Your task to perform on an android device: What's on my calendar tomorrow? Image 0: 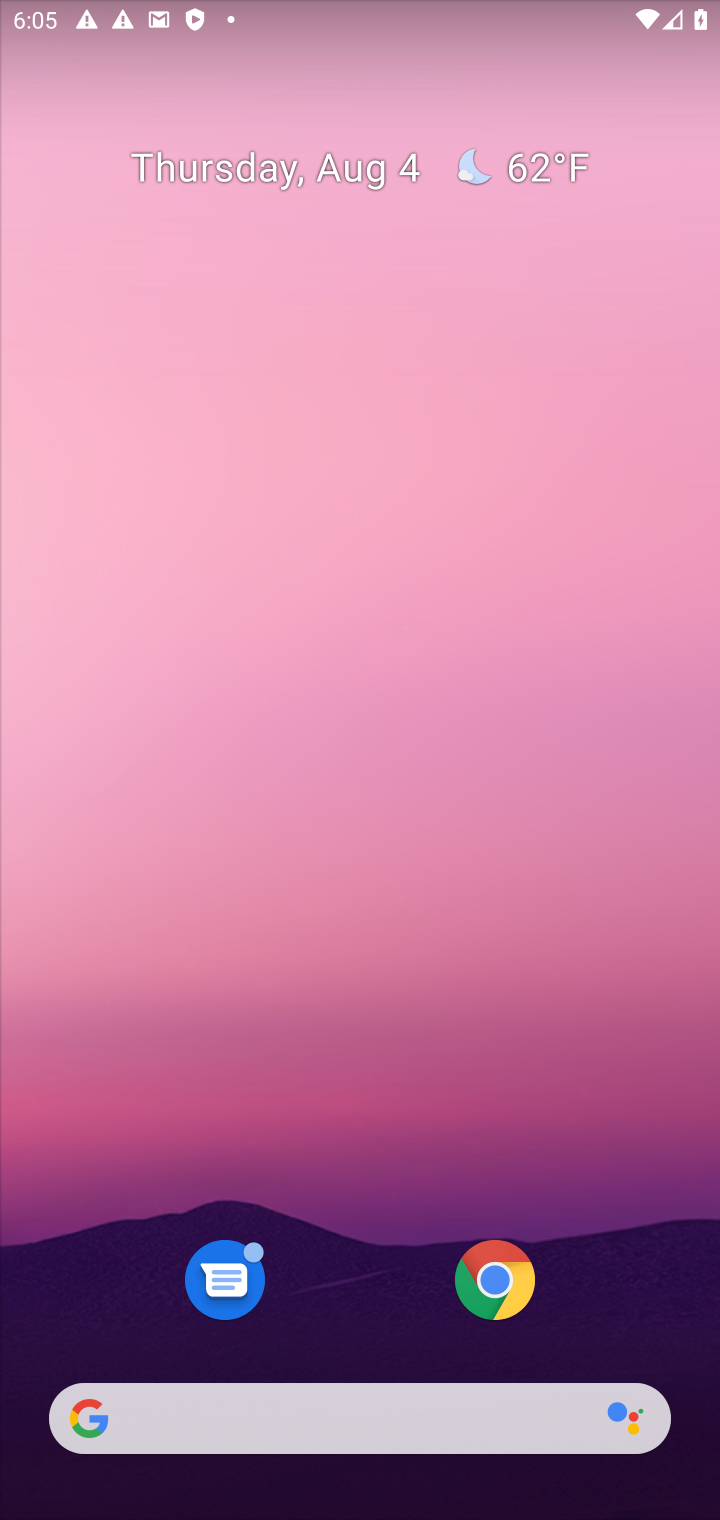
Step 0: drag from (307, 545) to (451, 184)
Your task to perform on an android device: What's on my calendar tomorrow? Image 1: 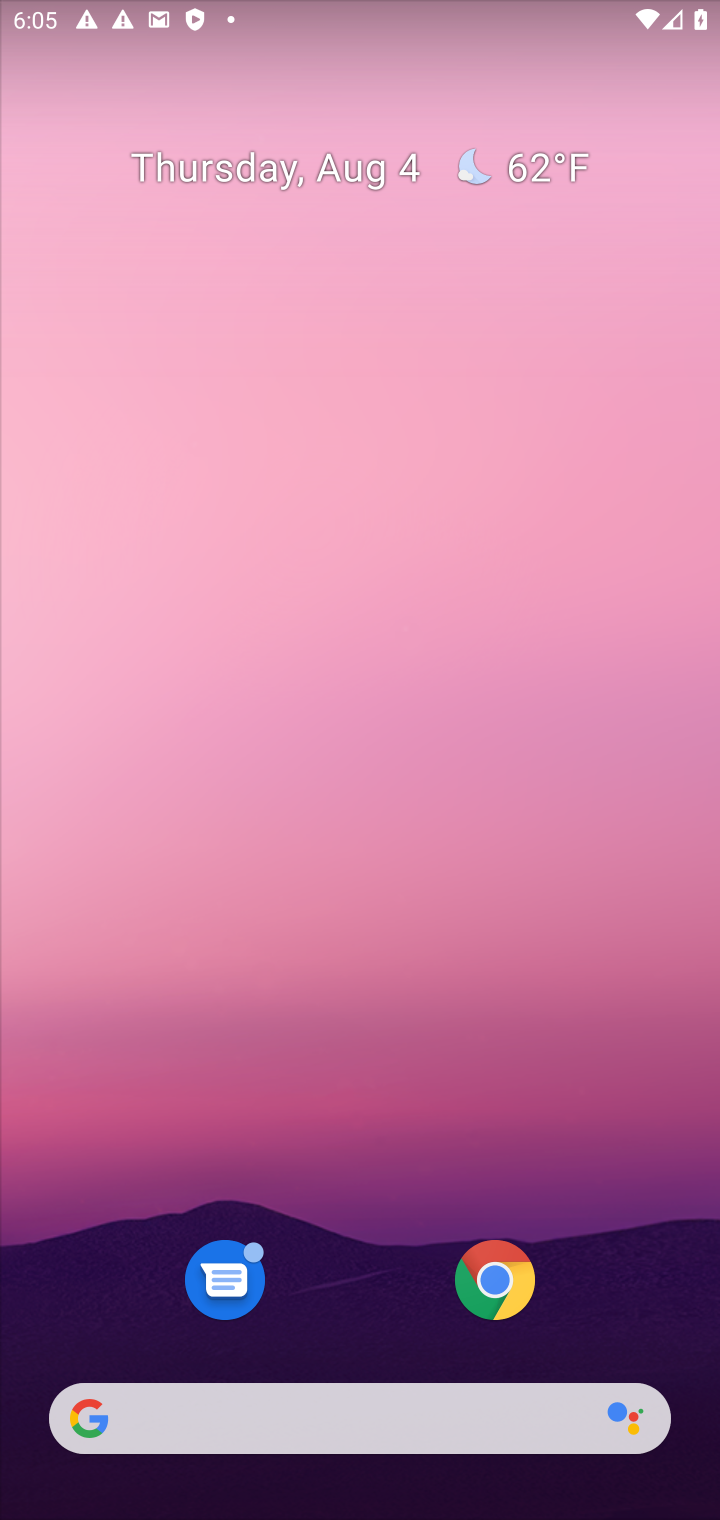
Step 1: drag from (369, 1213) to (238, 44)
Your task to perform on an android device: What's on my calendar tomorrow? Image 2: 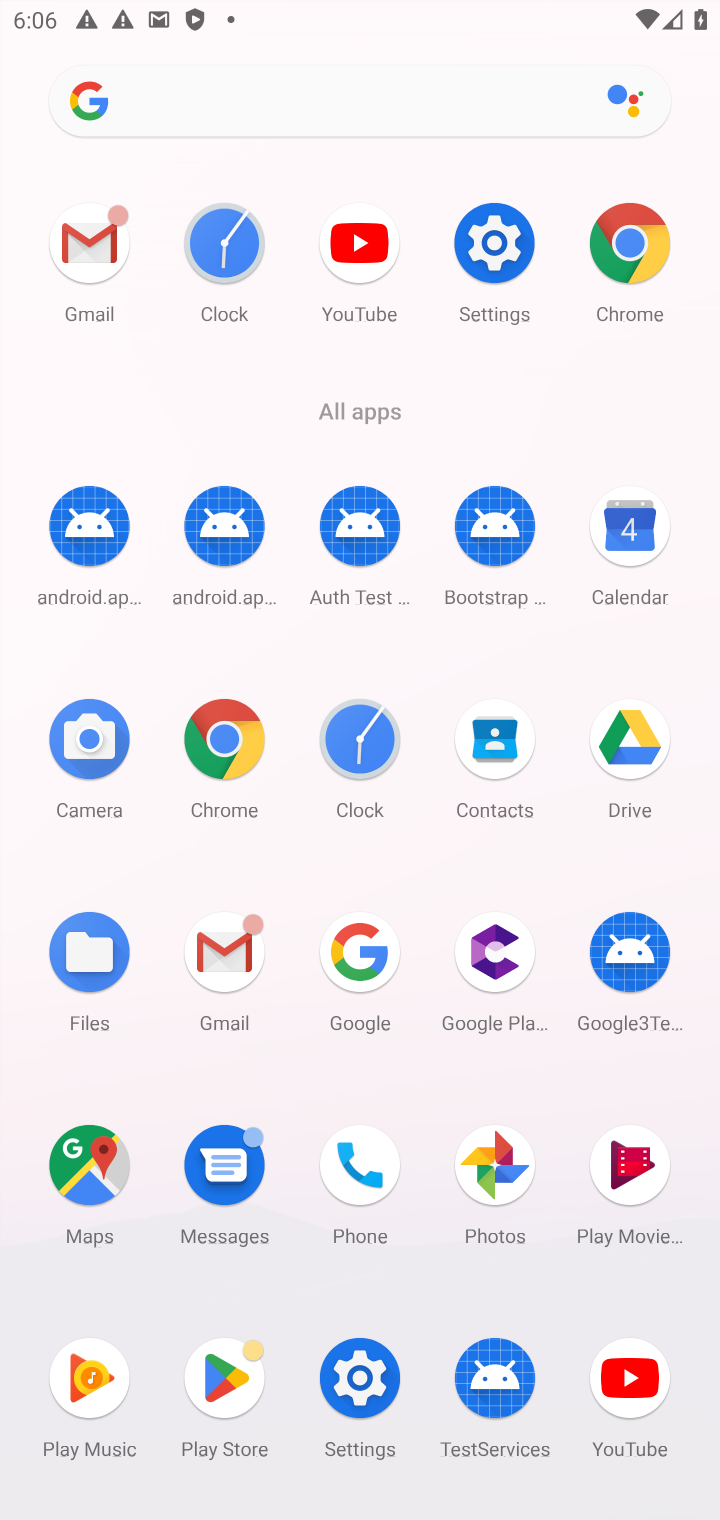
Step 2: click (635, 581)
Your task to perform on an android device: What's on my calendar tomorrow? Image 3: 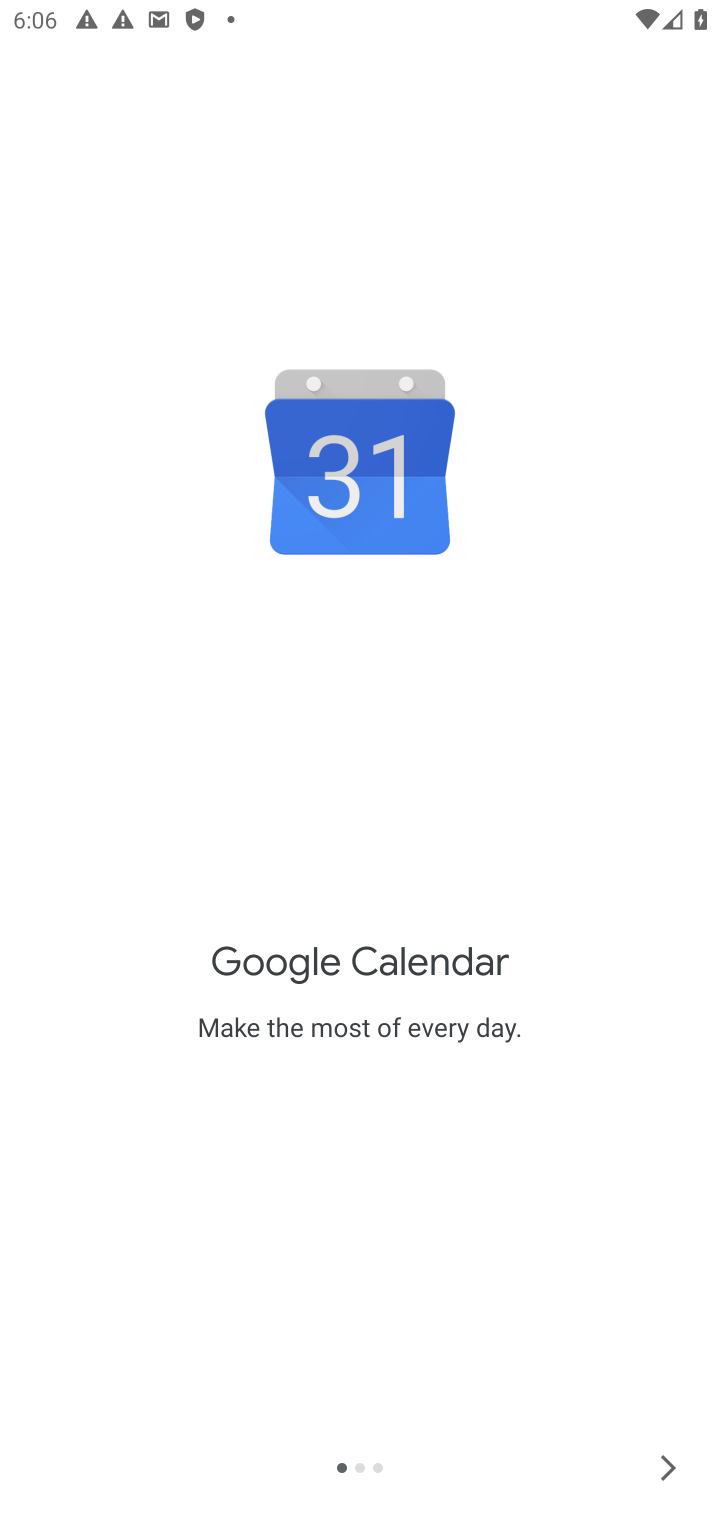
Step 3: click (665, 1477)
Your task to perform on an android device: What's on my calendar tomorrow? Image 4: 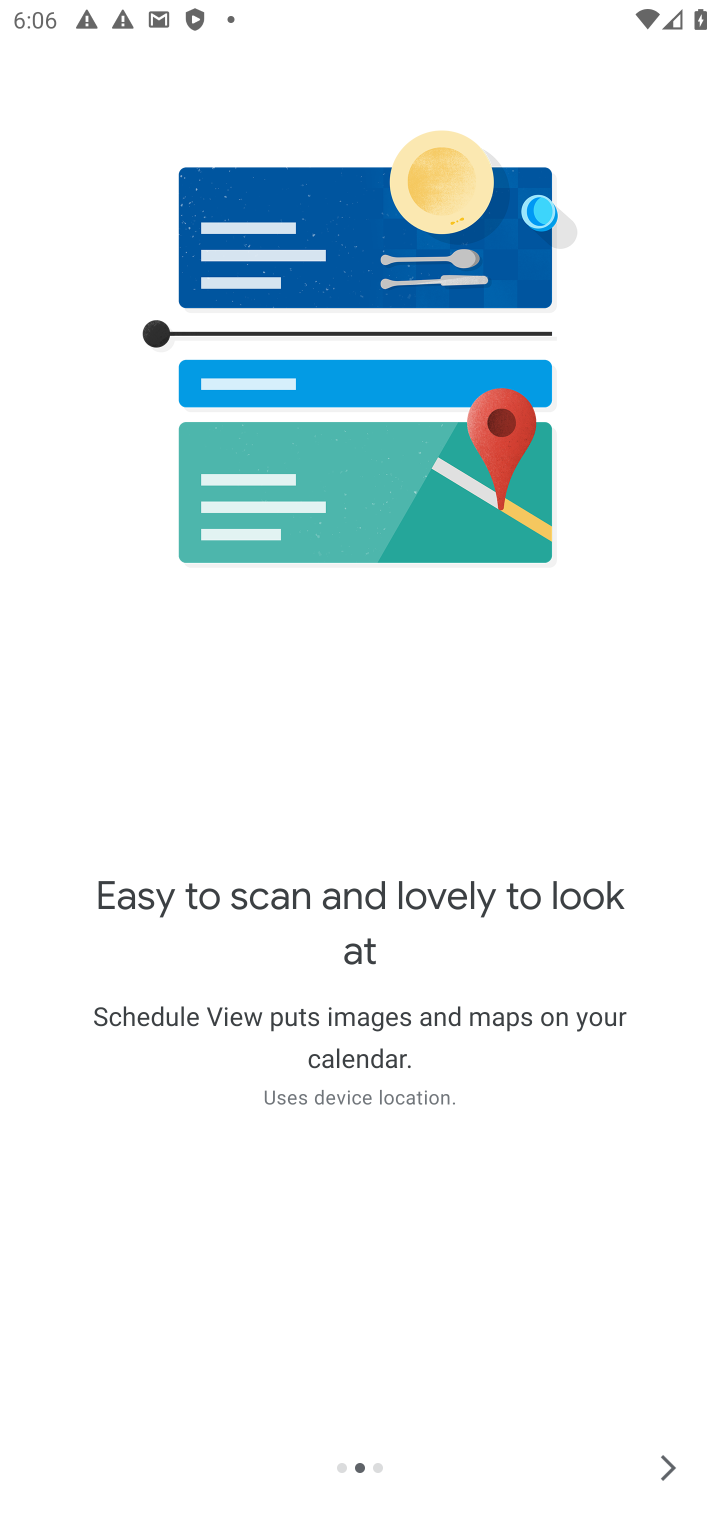
Step 4: click (665, 1477)
Your task to perform on an android device: What's on my calendar tomorrow? Image 5: 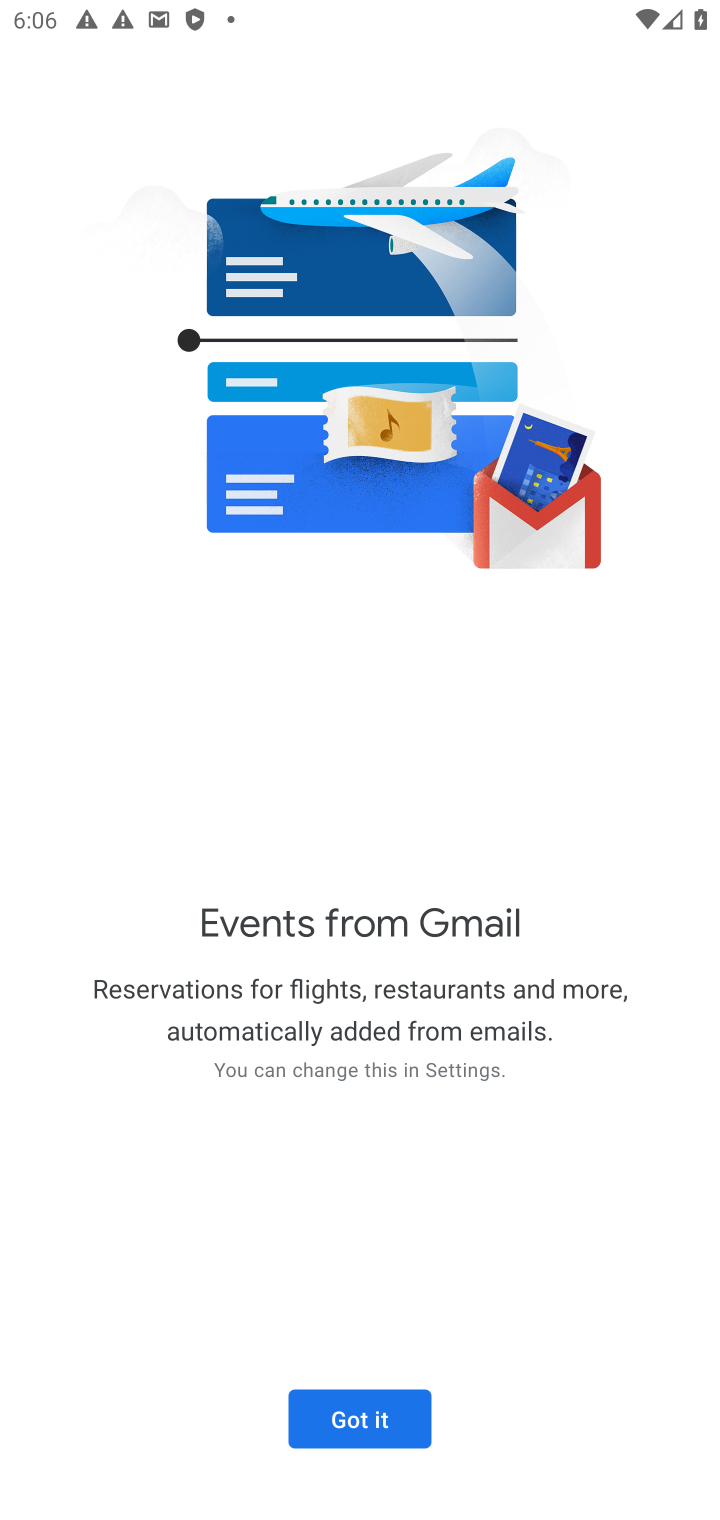
Step 5: click (314, 1406)
Your task to perform on an android device: What's on my calendar tomorrow? Image 6: 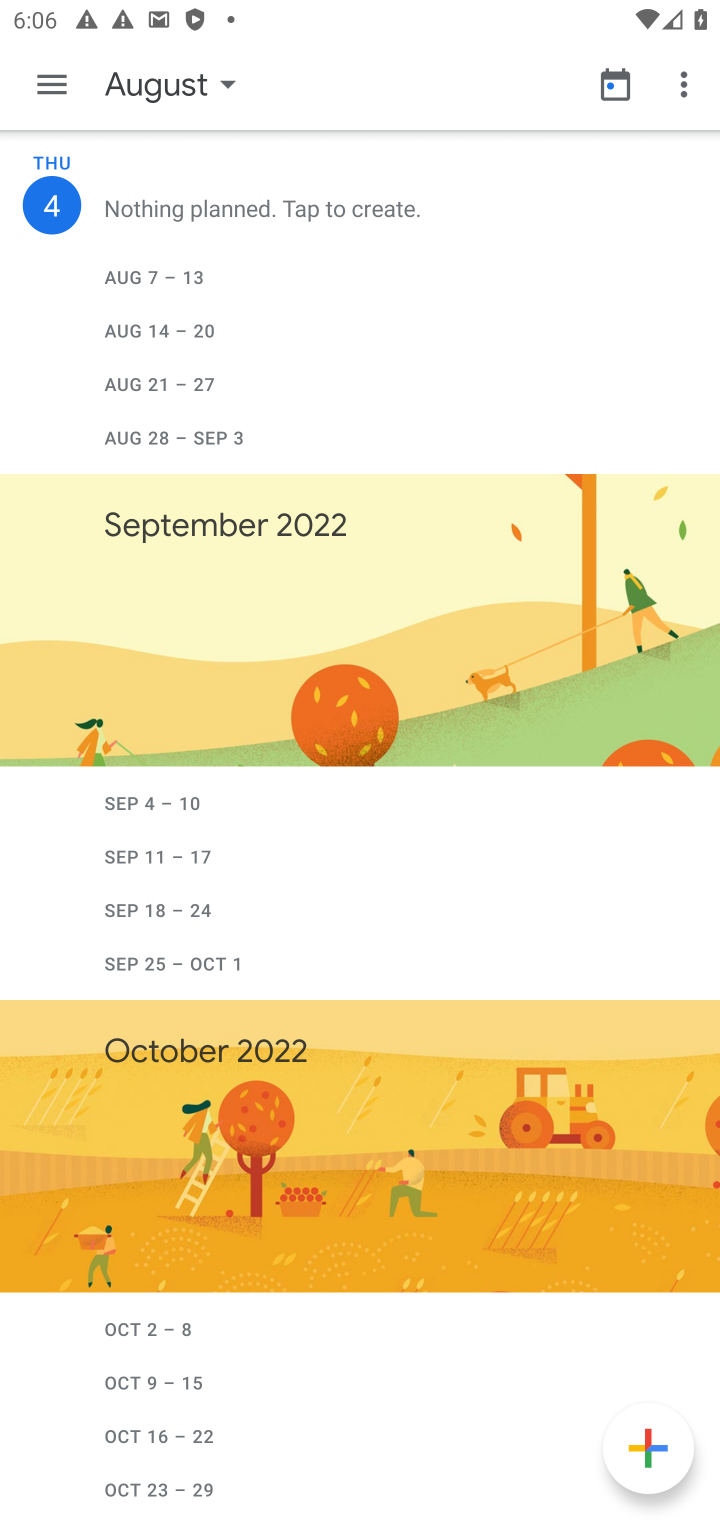
Step 6: task complete